Your task to perform on an android device: What's the weather going to be this weekend? Image 0: 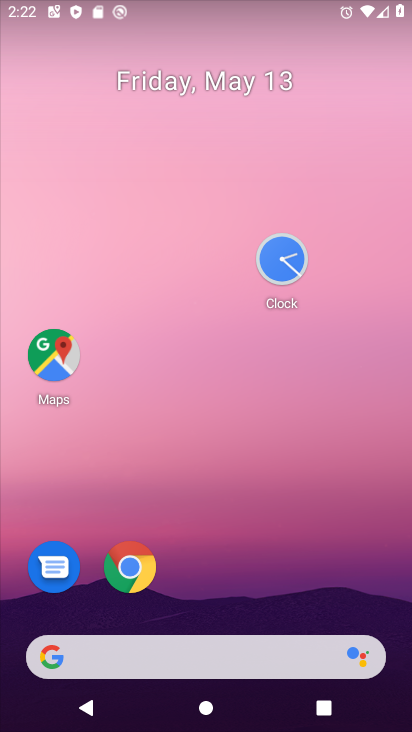
Step 0: drag from (279, 594) to (287, 368)
Your task to perform on an android device: What's the weather going to be this weekend? Image 1: 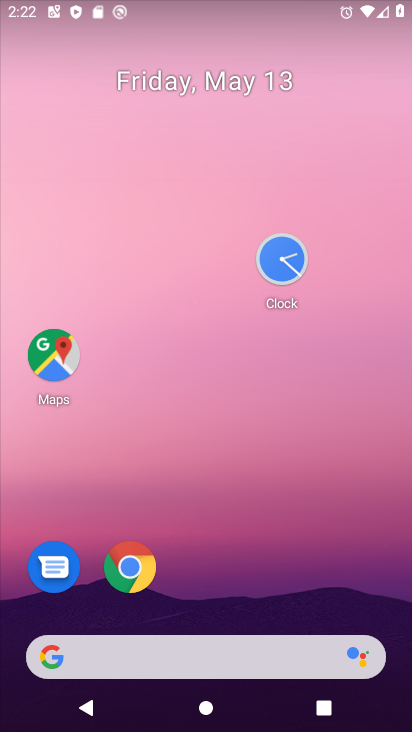
Step 1: click (188, 672)
Your task to perform on an android device: What's the weather going to be this weekend? Image 2: 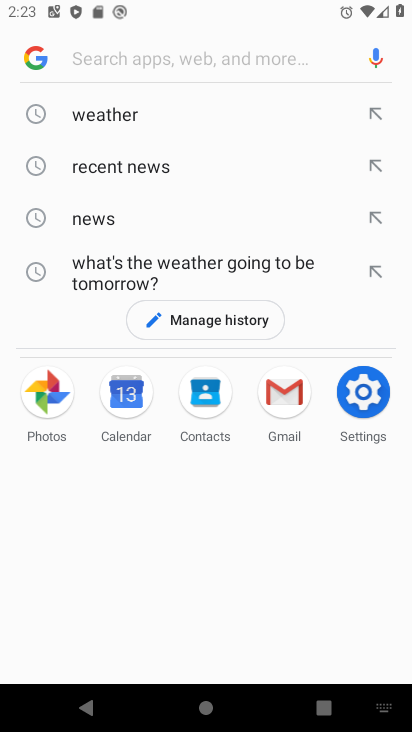
Step 2: click (170, 123)
Your task to perform on an android device: What's the weather going to be this weekend? Image 3: 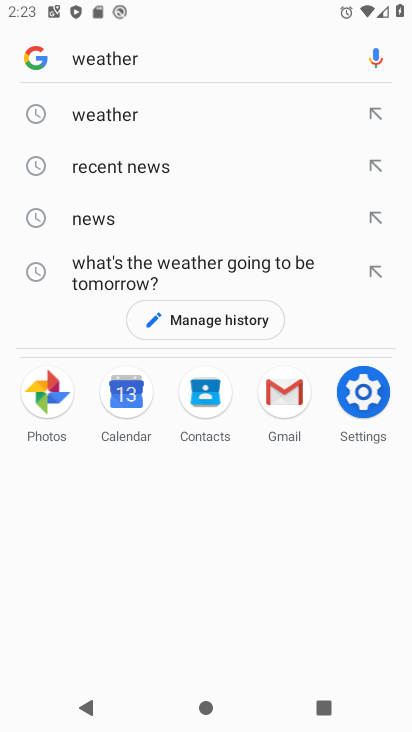
Step 3: task complete